Your task to perform on an android device: Open Youtube and go to "Your channel" Image 0: 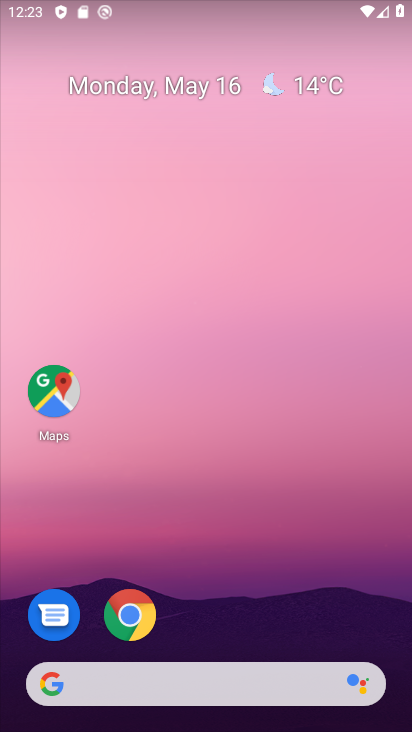
Step 0: drag from (289, 577) to (285, 146)
Your task to perform on an android device: Open Youtube and go to "Your channel" Image 1: 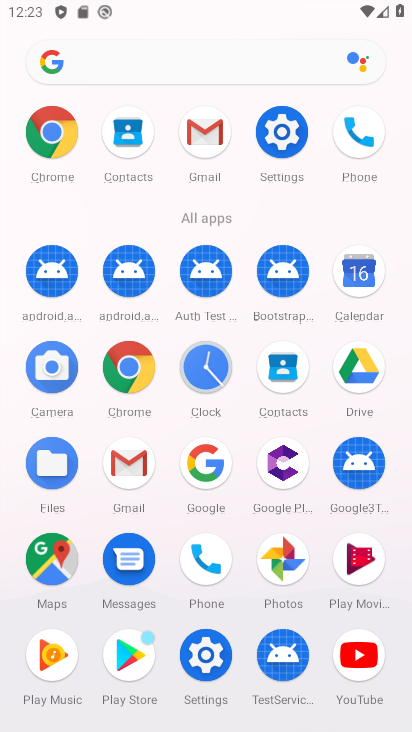
Step 1: click (351, 651)
Your task to perform on an android device: Open Youtube and go to "Your channel" Image 2: 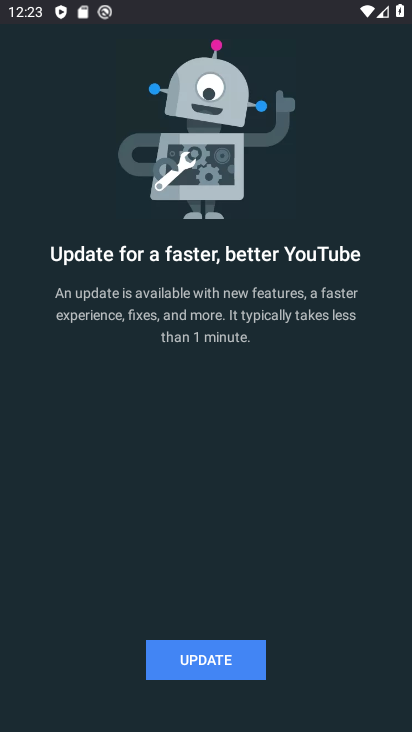
Step 2: click (244, 654)
Your task to perform on an android device: Open Youtube and go to "Your channel" Image 3: 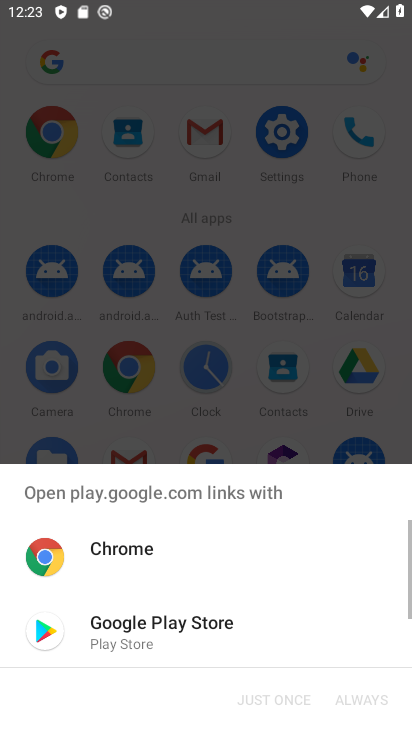
Step 3: click (189, 629)
Your task to perform on an android device: Open Youtube and go to "Your channel" Image 4: 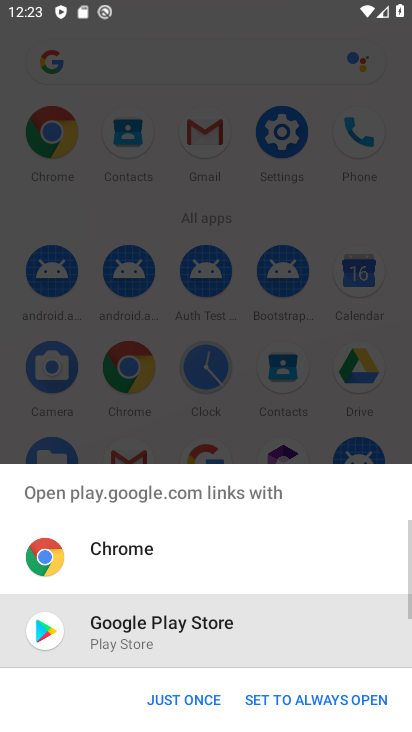
Step 4: click (198, 698)
Your task to perform on an android device: Open Youtube and go to "Your channel" Image 5: 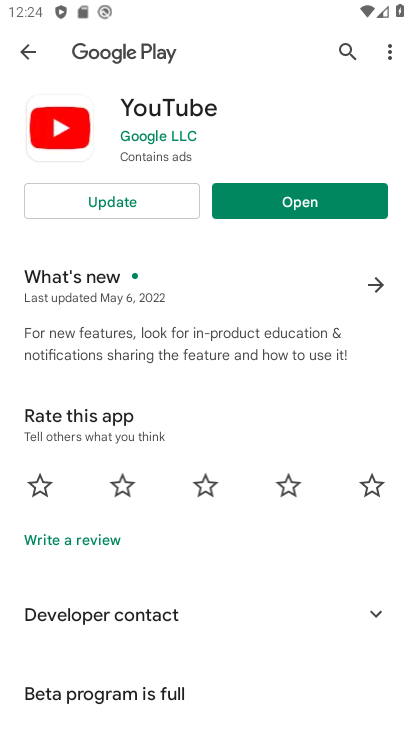
Step 5: click (167, 199)
Your task to perform on an android device: Open Youtube and go to "Your channel" Image 6: 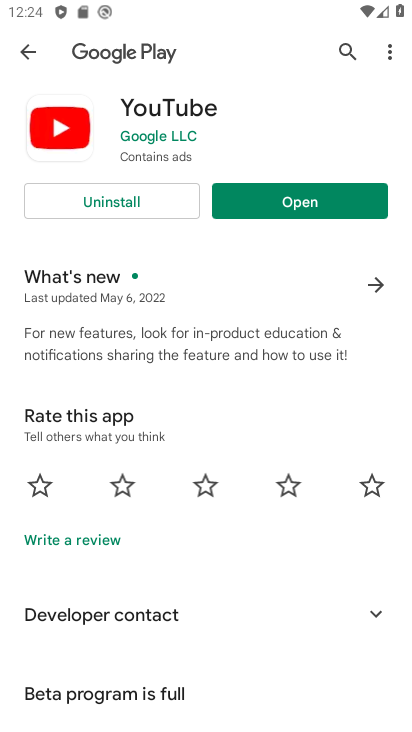
Step 6: click (304, 210)
Your task to perform on an android device: Open Youtube and go to "Your channel" Image 7: 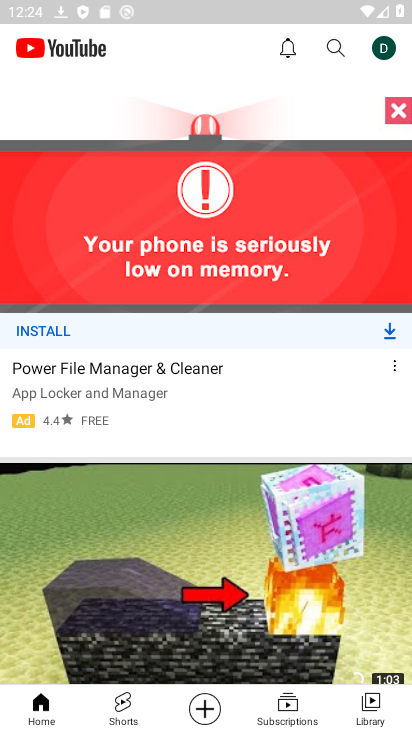
Step 7: click (385, 47)
Your task to perform on an android device: Open Youtube and go to "Your channel" Image 8: 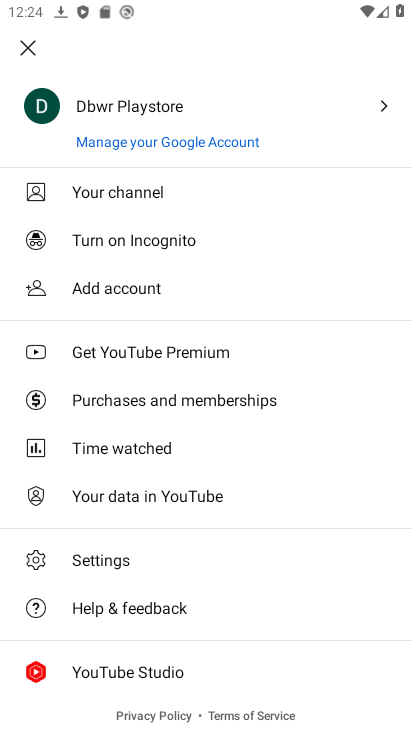
Step 8: click (139, 186)
Your task to perform on an android device: Open Youtube and go to "Your channel" Image 9: 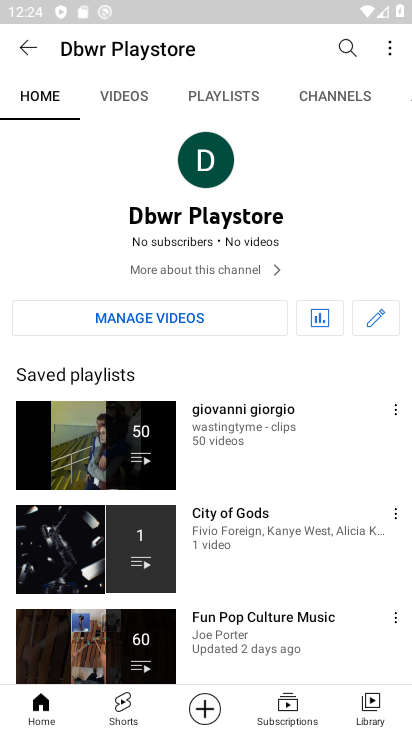
Step 9: task complete